Your task to perform on an android device: find which apps use the phone's location Image 0: 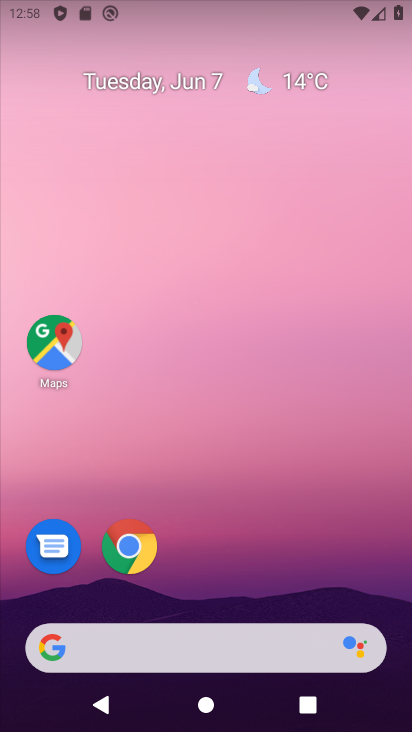
Step 0: drag from (224, 613) to (165, 20)
Your task to perform on an android device: find which apps use the phone's location Image 1: 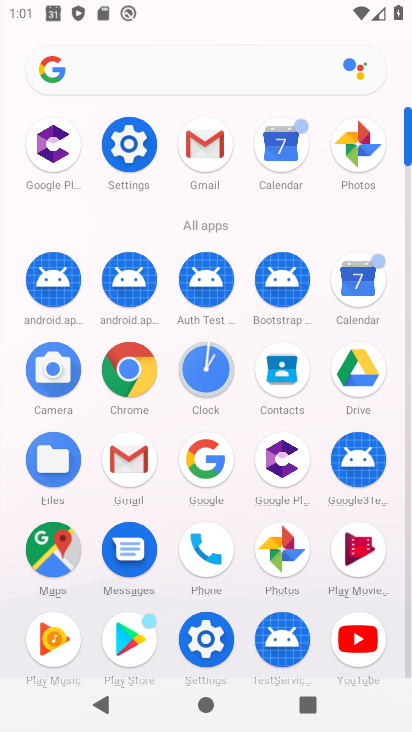
Step 1: click (183, 658)
Your task to perform on an android device: find which apps use the phone's location Image 2: 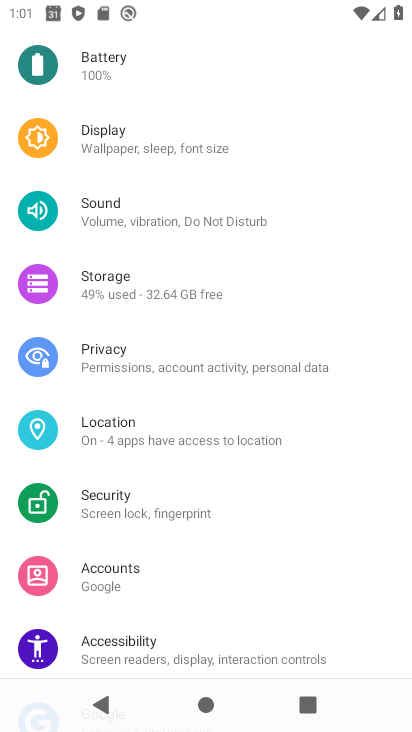
Step 2: drag from (275, 514) to (242, 169)
Your task to perform on an android device: find which apps use the phone's location Image 3: 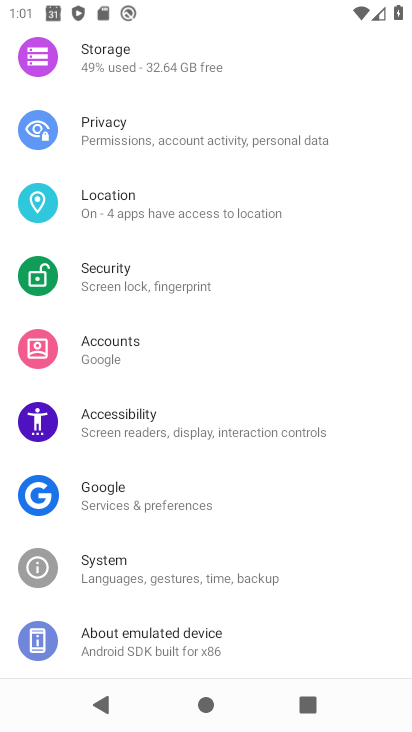
Step 3: click (132, 210)
Your task to perform on an android device: find which apps use the phone's location Image 4: 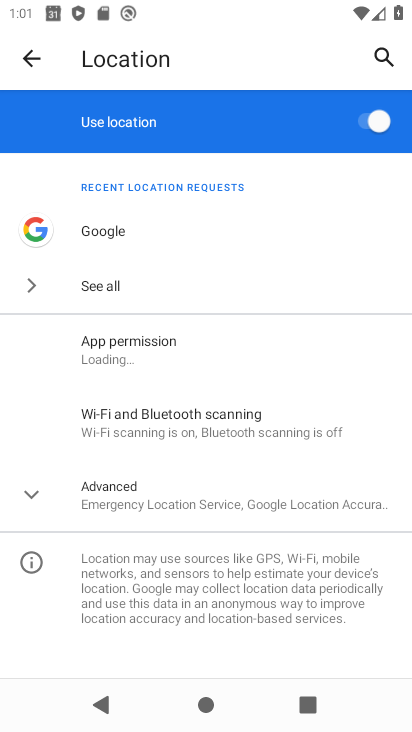
Step 4: click (177, 354)
Your task to perform on an android device: find which apps use the phone's location Image 5: 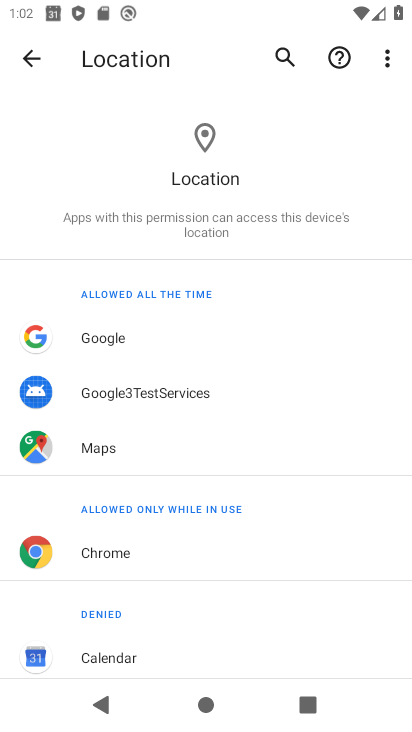
Step 5: task complete